Your task to perform on an android device: Add dell xps to the cart on newegg.com, then select checkout. Image 0: 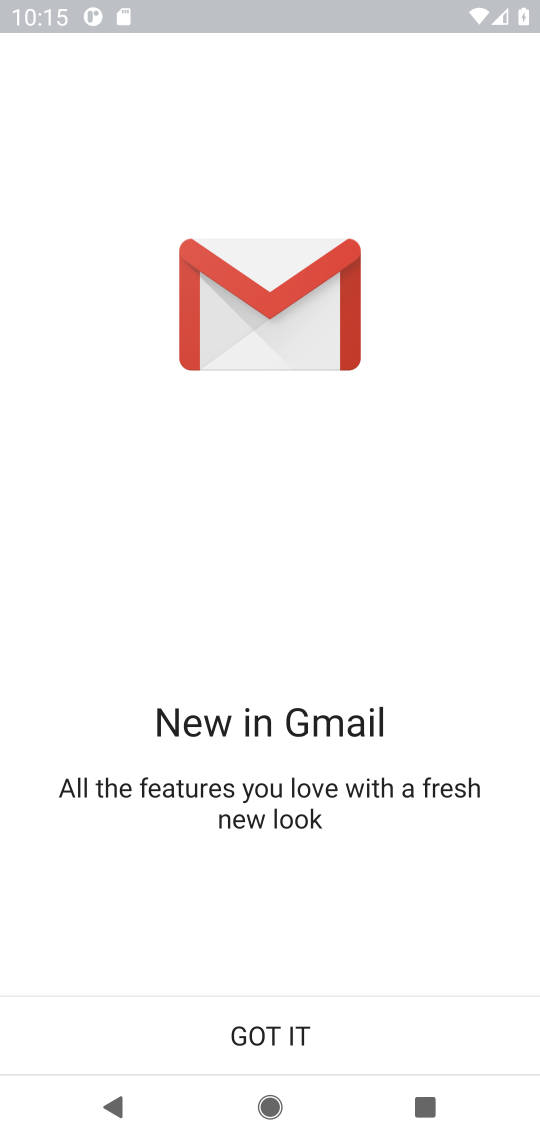
Step 0: press home button
Your task to perform on an android device: Add dell xps to the cart on newegg.com, then select checkout. Image 1: 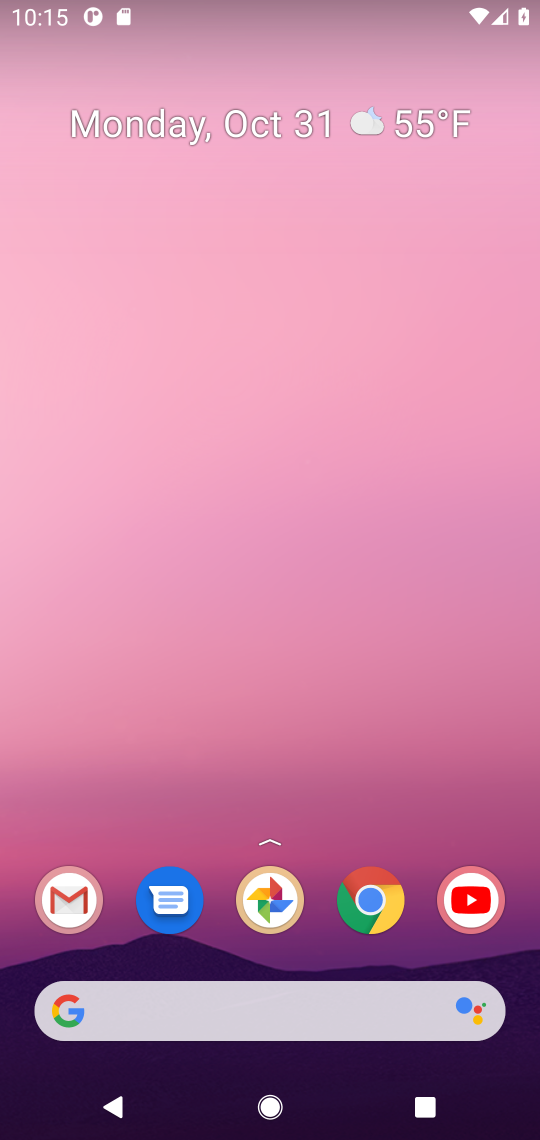
Step 1: click (364, 897)
Your task to perform on an android device: Add dell xps to the cart on newegg.com, then select checkout. Image 2: 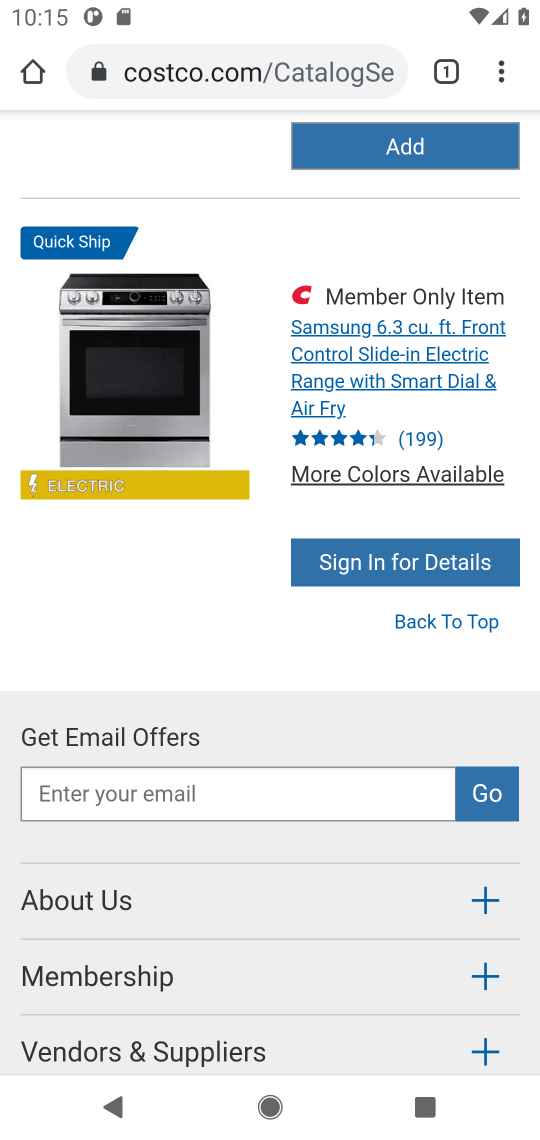
Step 2: click (195, 82)
Your task to perform on an android device: Add dell xps to the cart on newegg.com, then select checkout. Image 3: 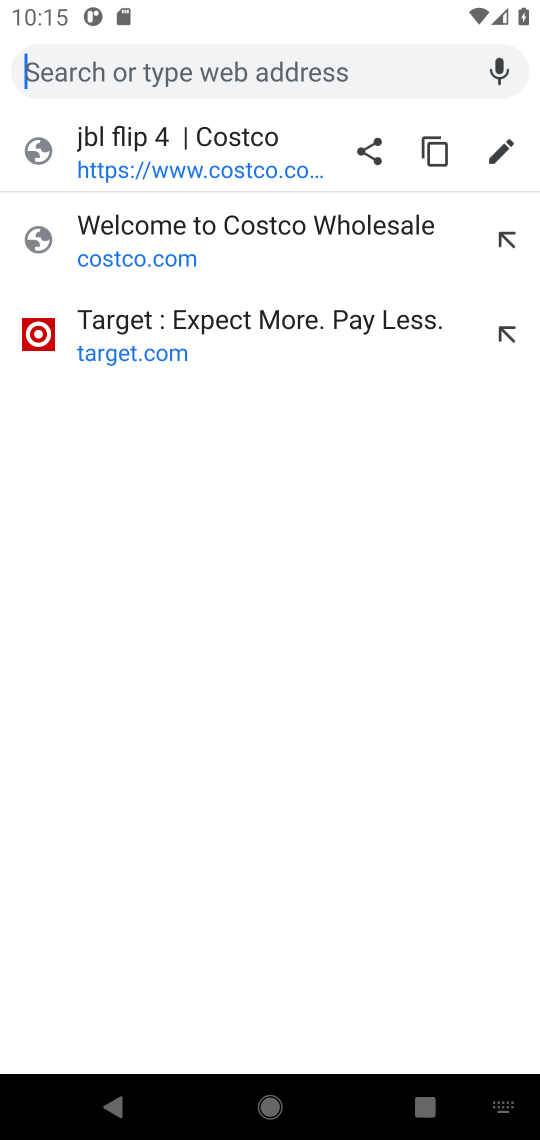
Step 3: type "newegg.com"
Your task to perform on an android device: Add dell xps to the cart on newegg.com, then select checkout. Image 4: 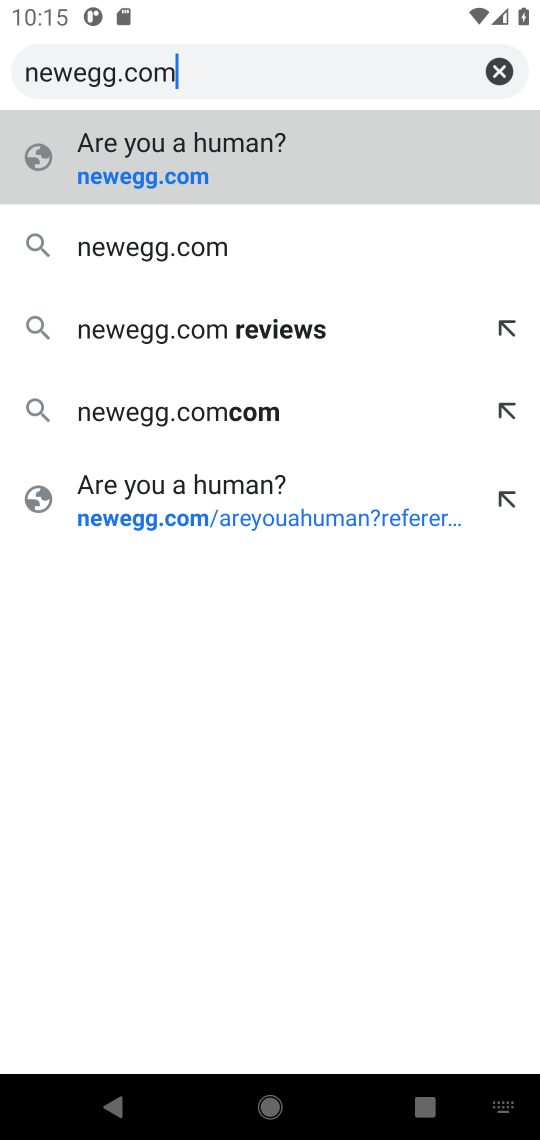
Step 4: click (141, 269)
Your task to perform on an android device: Add dell xps to the cart on newegg.com, then select checkout. Image 5: 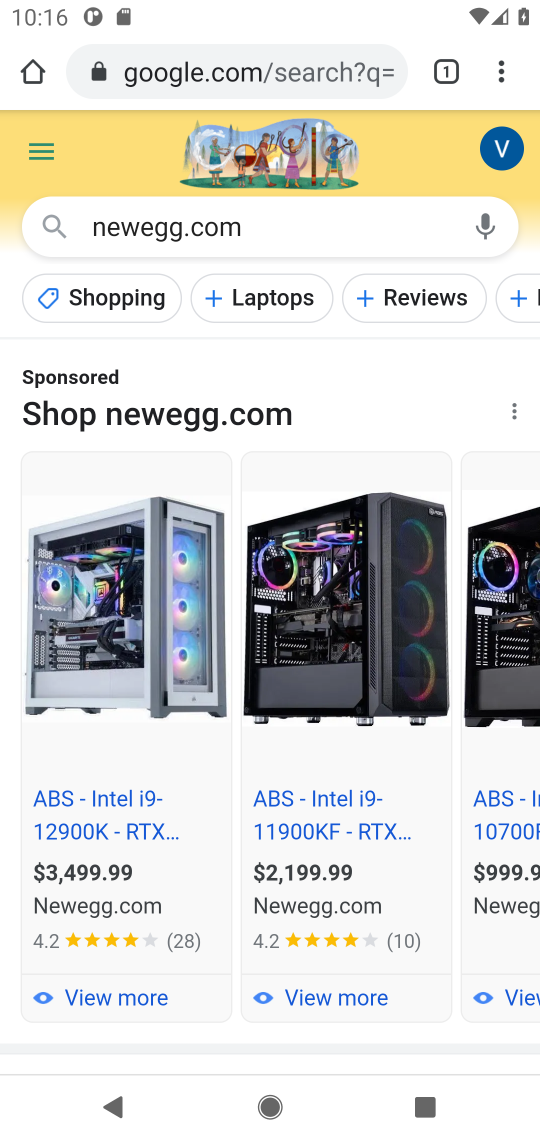
Step 5: drag from (196, 757) to (189, 189)
Your task to perform on an android device: Add dell xps to the cart on newegg.com, then select checkout. Image 6: 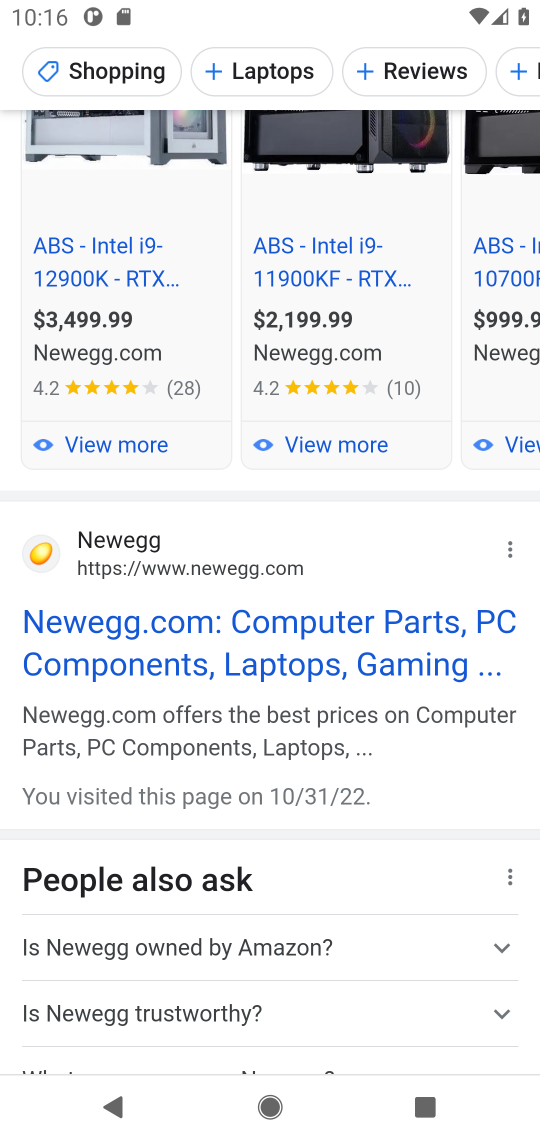
Step 6: click (140, 628)
Your task to perform on an android device: Add dell xps to the cart on newegg.com, then select checkout. Image 7: 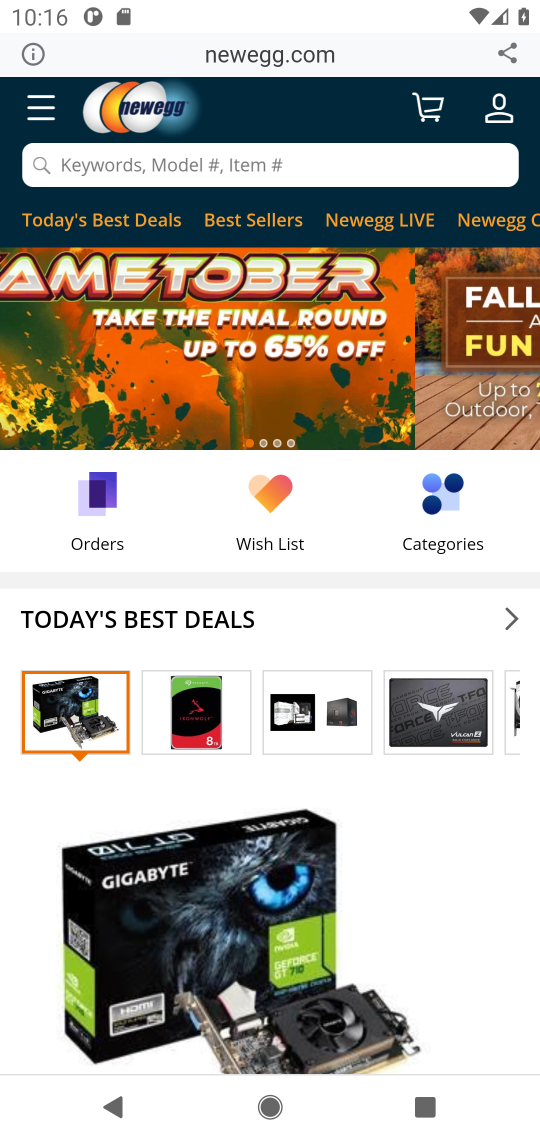
Step 7: click (160, 151)
Your task to perform on an android device: Add dell xps to the cart on newegg.com, then select checkout. Image 8: 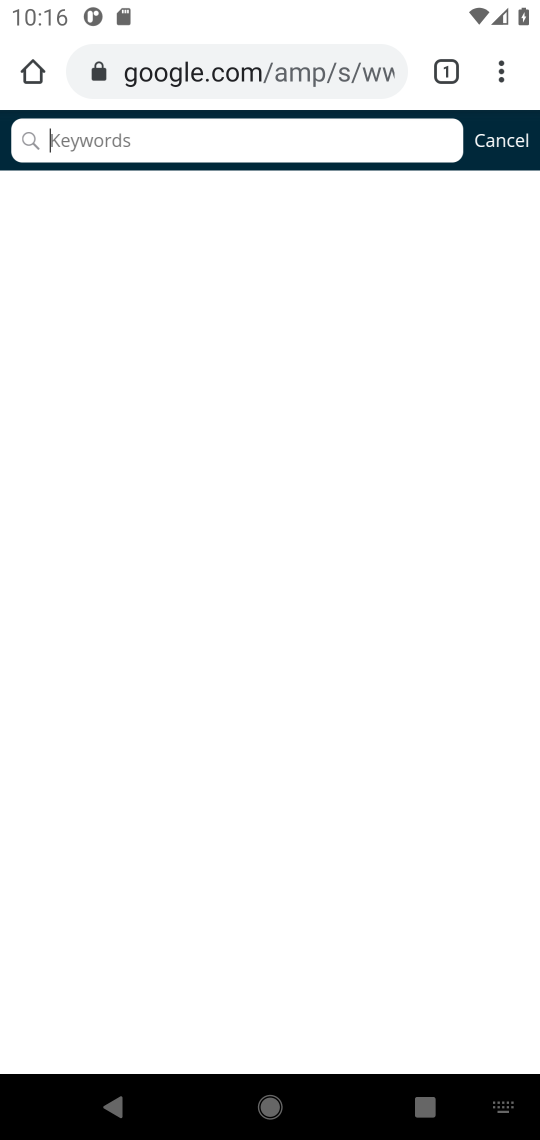
Step 8: type "dell xps"
Your task to perform on an android device: Add dell xps to the cart on newegg.com, then select checkout. Image 9: 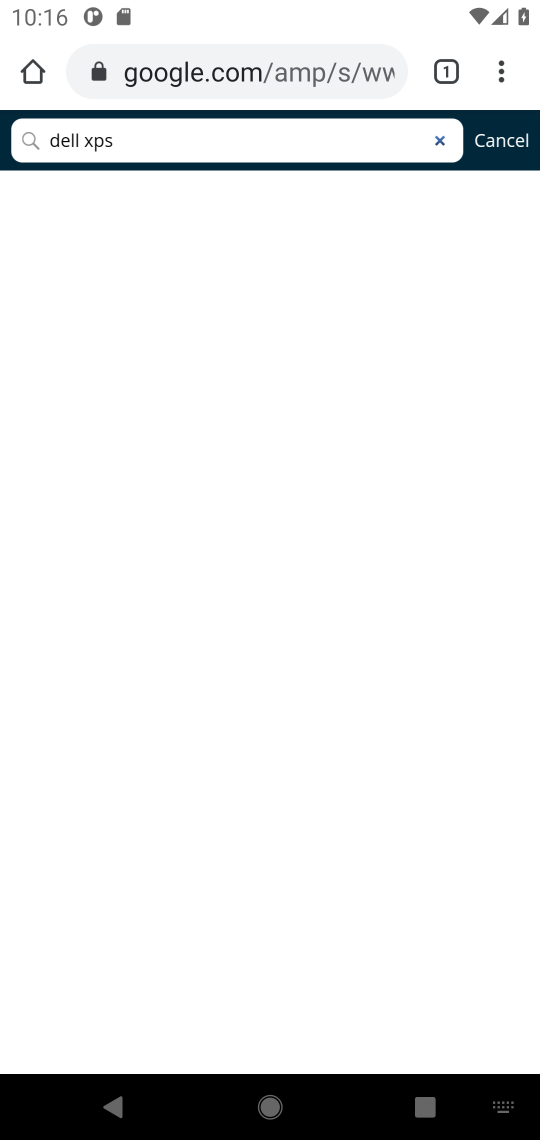
Step 9: click (26, 140)
Your task to perform on an android device: Add dell xps to the cart on newegg.com, then select checkout. Image 10: 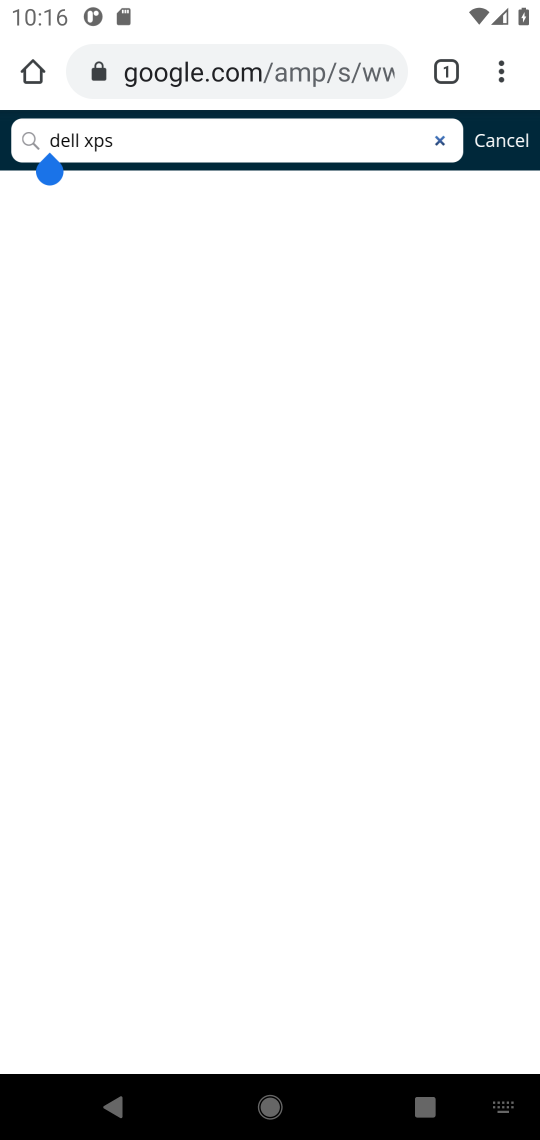
Step 10: click (166, 153)
Your task to perform on an android device: Add dell xps to the cart on newegg.com, then select checkout. Image 11: 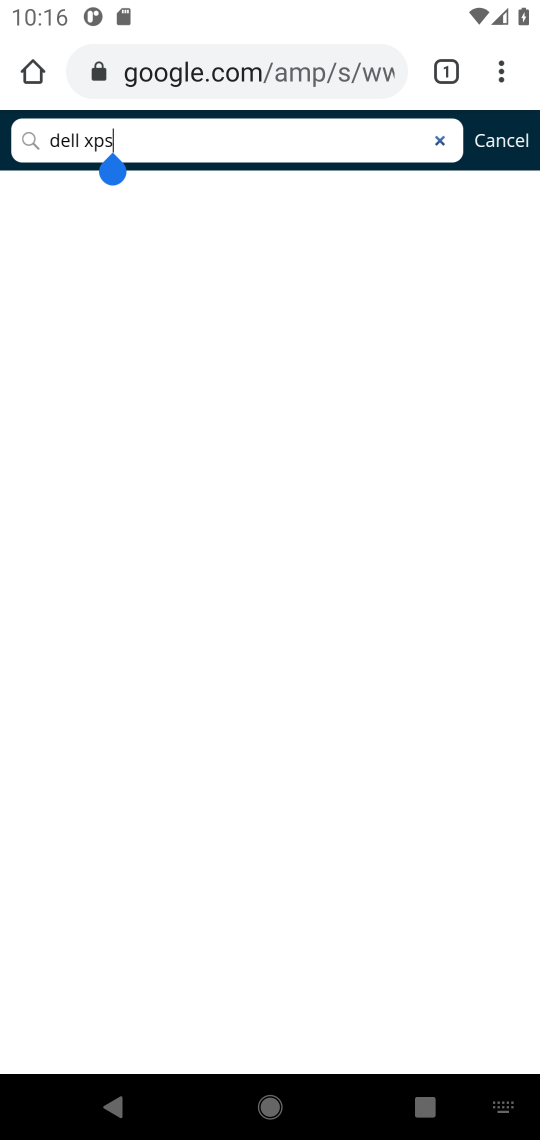
Step 11: click (485, 148)
Your task to perform on an android device: Add dell xps to the cart on newegg.com, then select checkout. Image 12: 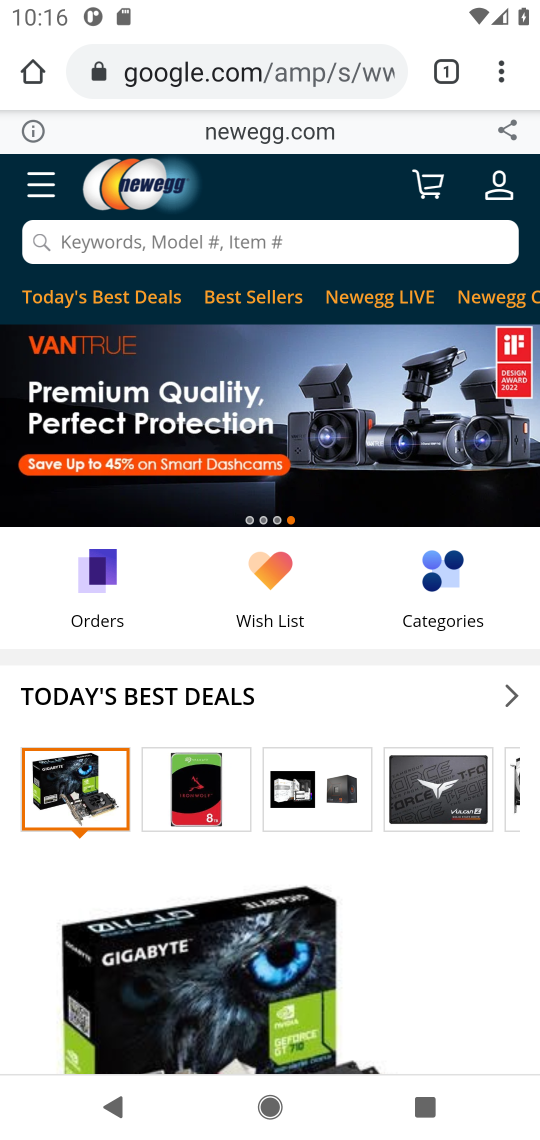
Step 12: click (109, 246)
Your task to perform on an android device: Add dell xps to the cart on newegg.com, then select checkout. Image 13: 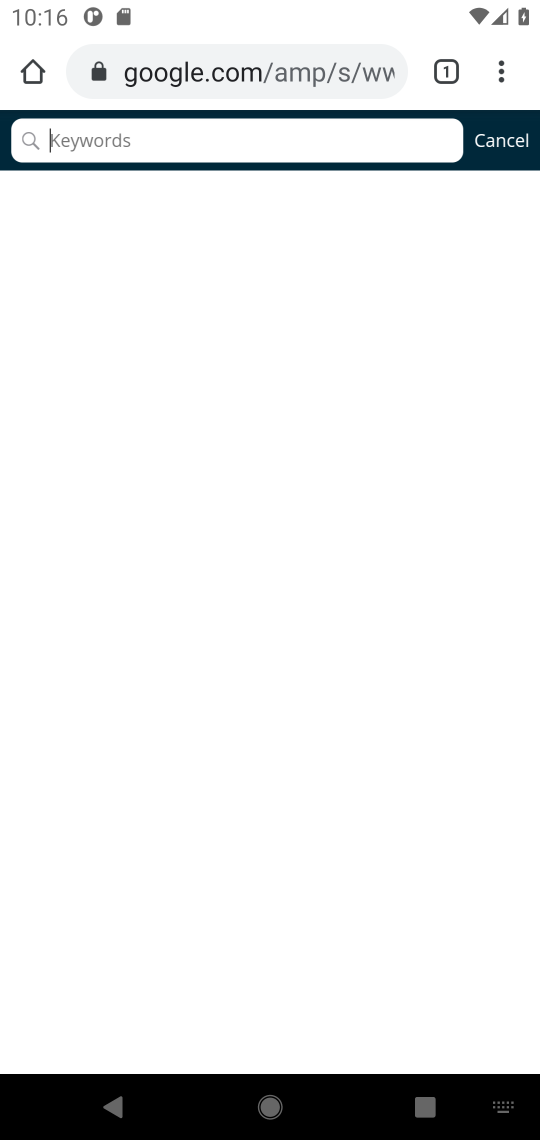
Step 13: click (121, 137)
Your task to perform on an android device: Add dell xps to the cart on newegg.com, then select checkout. Image 14: 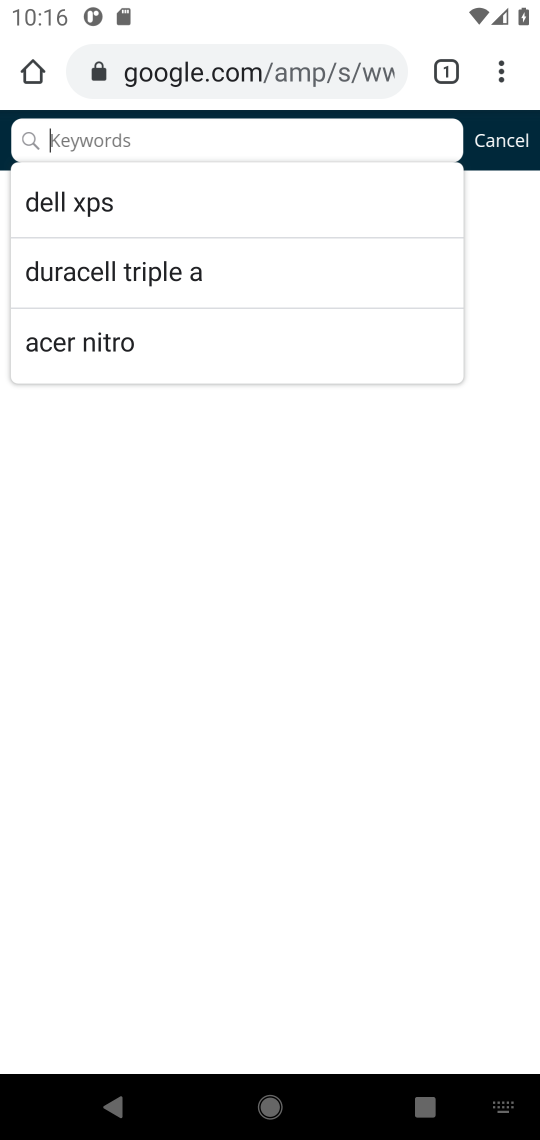
Step 14: click (103, 223)
Your task to perform on an android device: Add dell xps to the cart on newegg.com, then select checkout. Image 15: 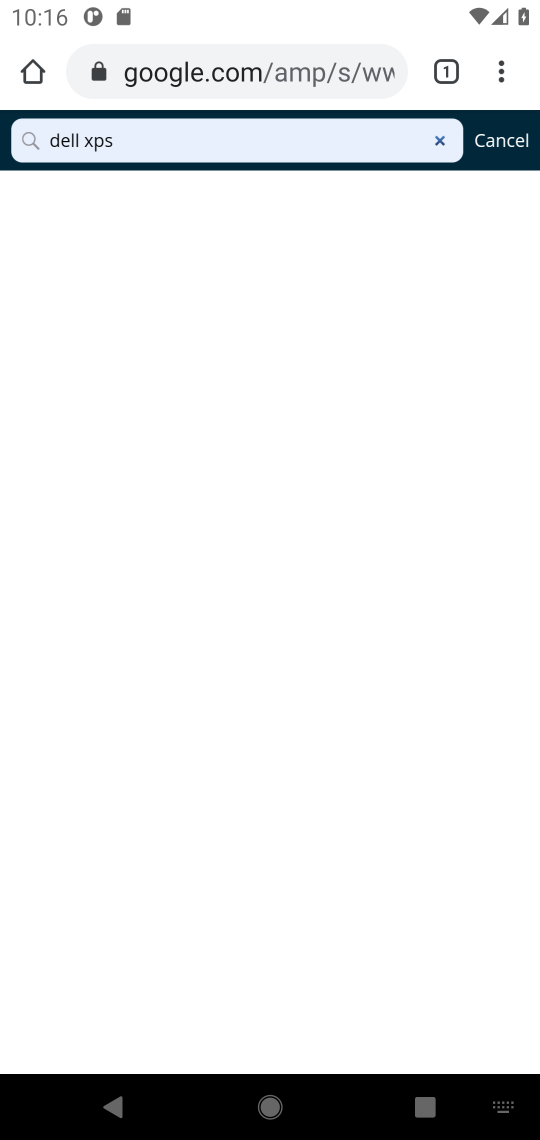
Step 15: task complete